Your task to perform on an android device: turn off location Image 0: 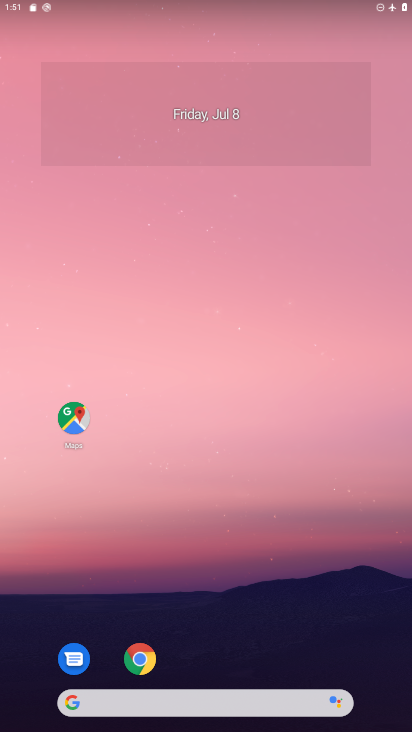
Step 0: drag from (213, 678) to (222, 80)
Your task to perform on an android device: turn off location Image 1: 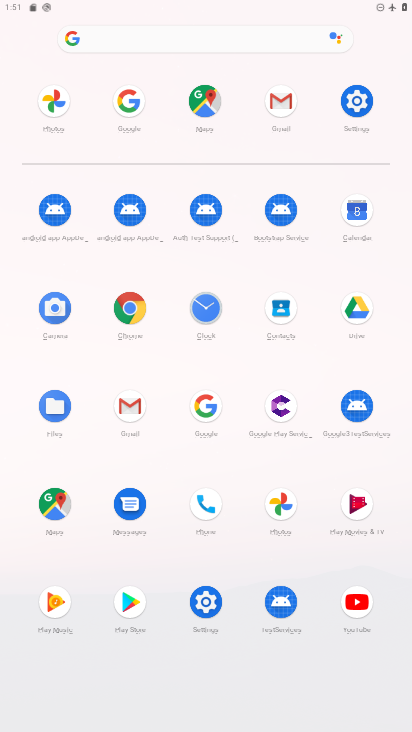
Step 1: click (355, 96)
Your task to perform on an android device: turn off location Image 2: 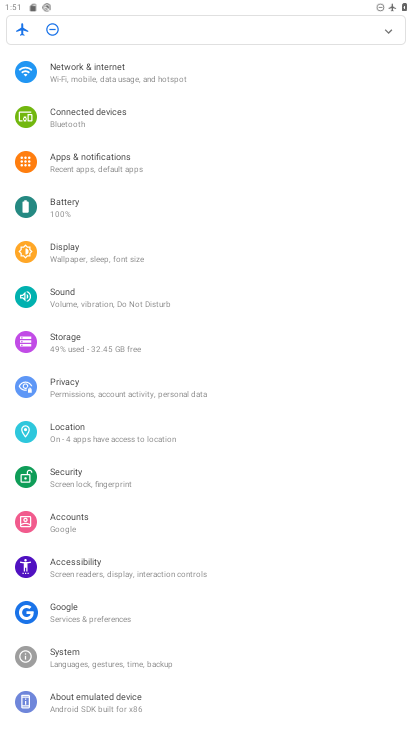
Step 2: click (72, 428)
Your task to perform on an android device: turn off location Image 3: 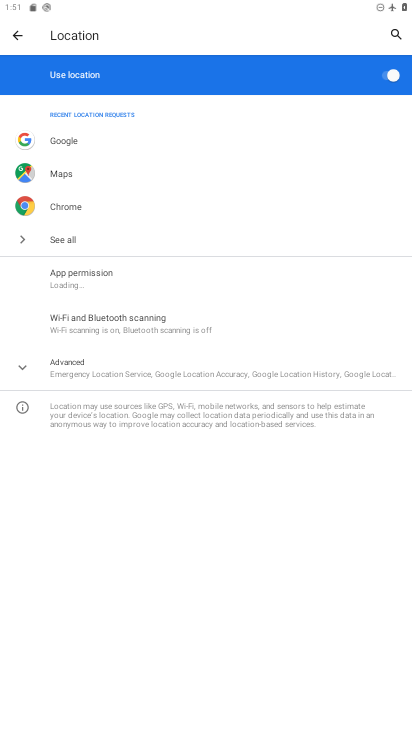
Step 3: click (388, 75)
Your task to perform on an android device: turn off location Image 4: 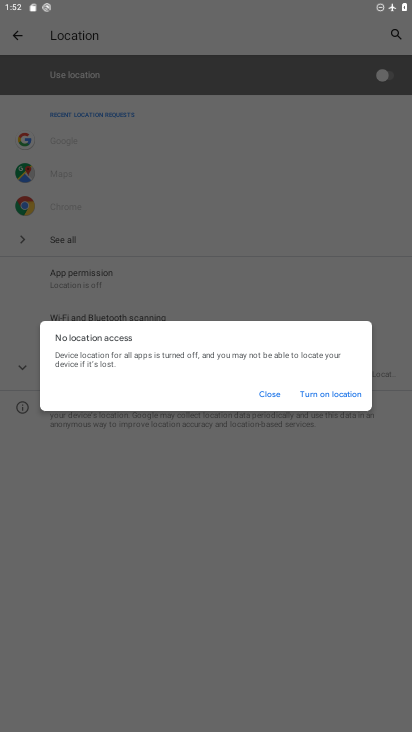
Step 4: click (271, 392)
Your task to perform on an android device: turn off location Image 5: 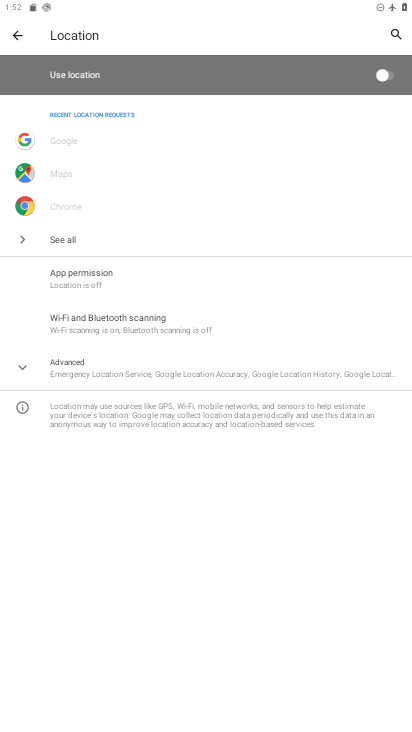
Step 5: task complete